Your task to perform on an android device: turn off sleep mode Image 0: 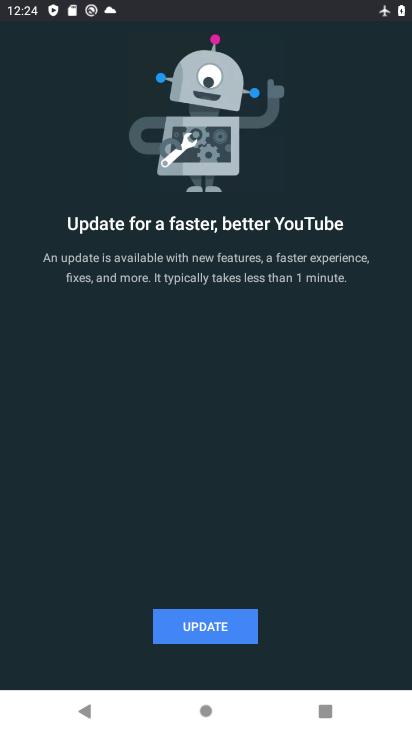
Step 0: press back button
Your task to perform on an android device: turn off sleep mode Image 1: 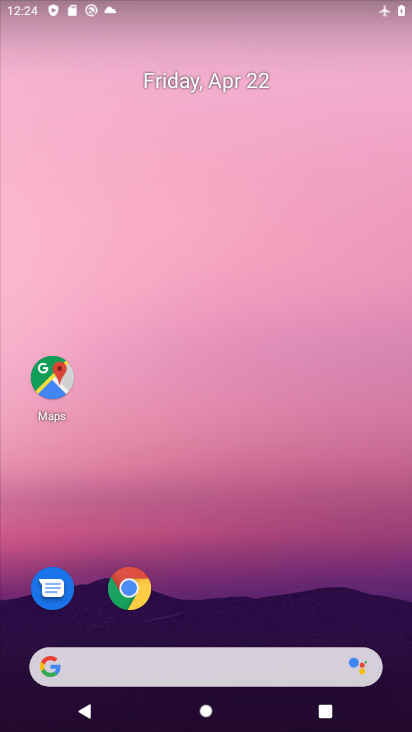
Step 1: drag from (286, 695) to (305, 149)
Your task to perform on an android device: turn off sleep mode Image 2: 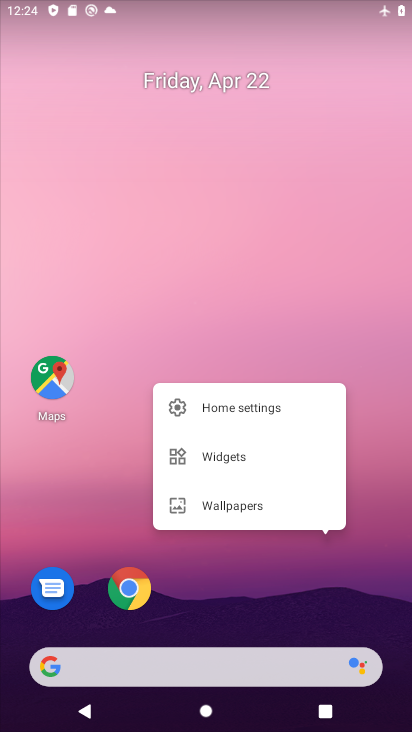
Step 2: click (287, 166)
Your task to perform on an android device: turn off sleep mode Image 3: 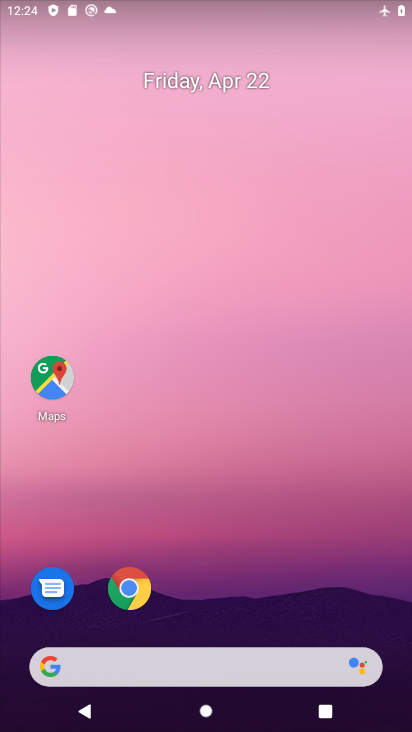
Step 3: drag from (253, 684) to (265, 150)
Your task to perform on an android device: turn off sleep mode Image 4: 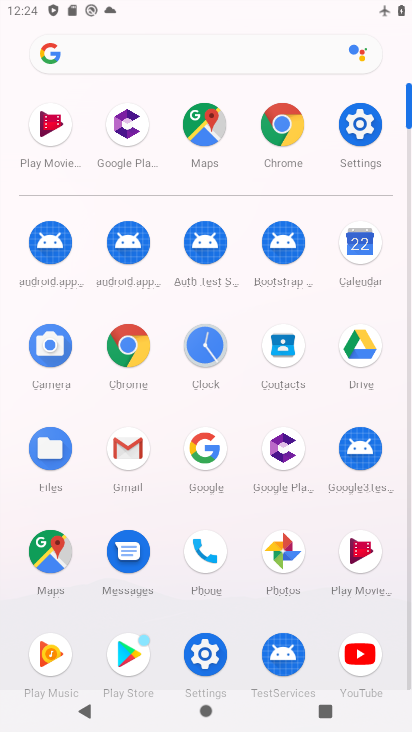
Step 4: click (360, 122)
Your task to perform on an android device: turn off sleep mode Image 5: 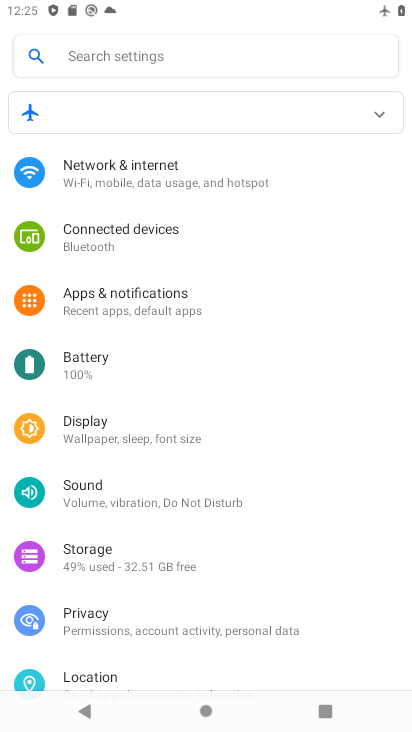
Step 5: click (242, 58)
Your task to perform on an android device: turn off sleep mode Image 6: 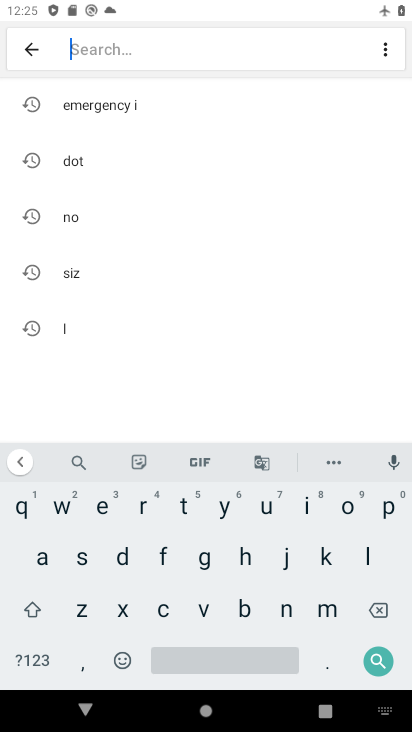
Step 6: click (79, 563)
Your task to perform on an android device: turn off sleep mode Image 7: 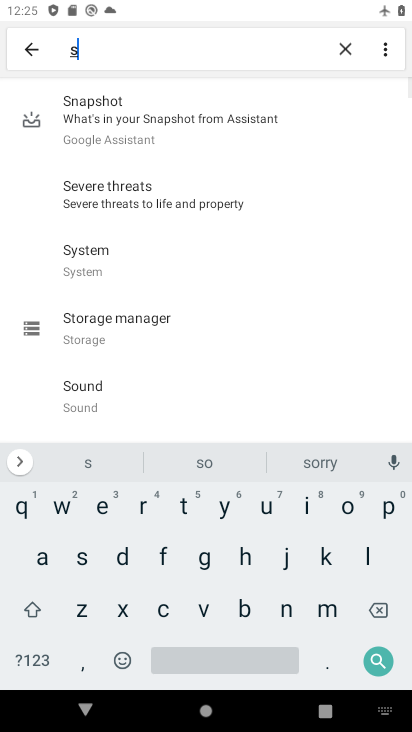
Step 7: click (363, 554)
Your task to perform on an android device: turn off sleep mode Image 8: 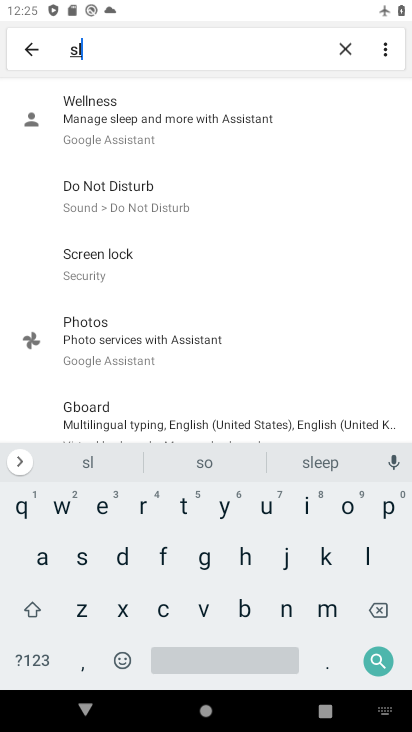
Step 8: click (163, 134)
Your task to perform on an android device: turn off sleep mode Image 9: 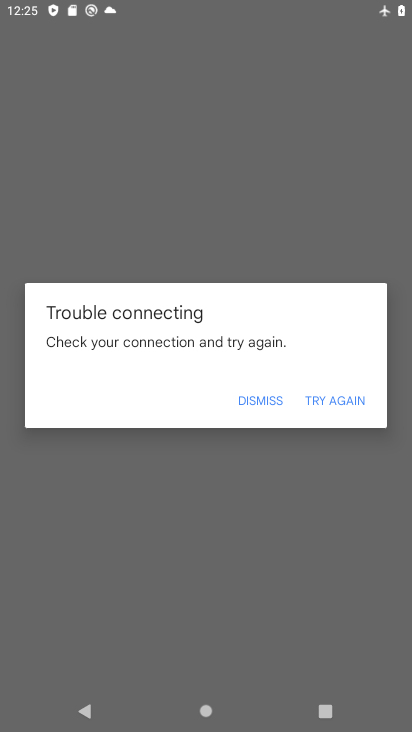
Step 9: click (321, 406)
Your task to perform on an android device: turn off sleep mode Image 10: 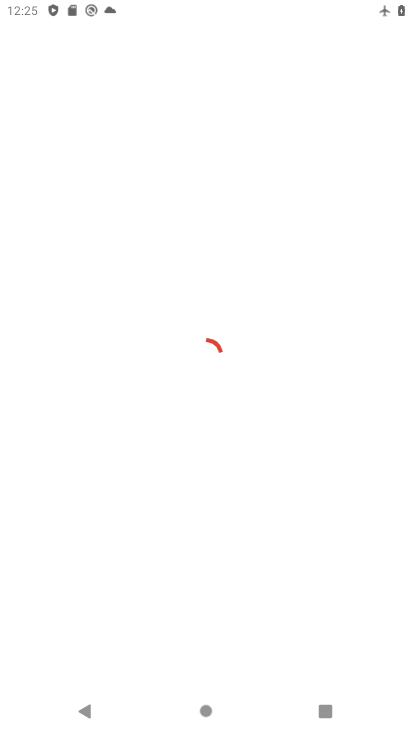
Step 10: press back button
Your task to perform on an android device: turn off sleep mode Image 11: 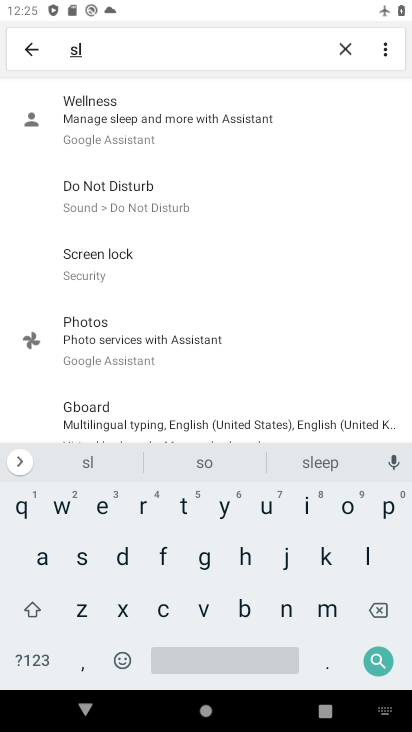
Step 11: click (32, 50)
Your task to perform on an android device: turn off sleep mode Image 12: 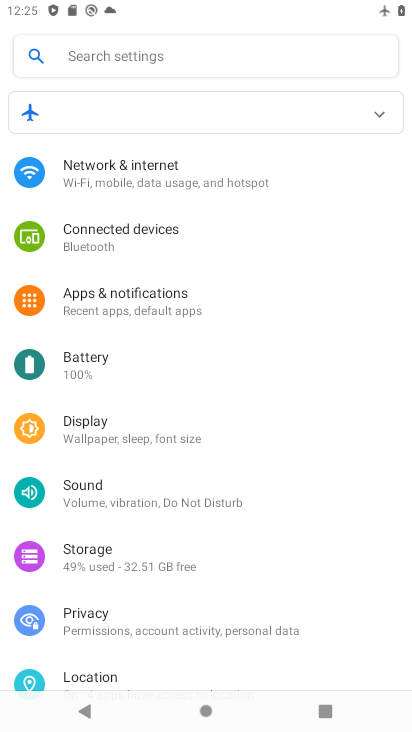
Step 12: click (377, 116)
Your task to perform on an android device: turn off sleep mode Image 13: 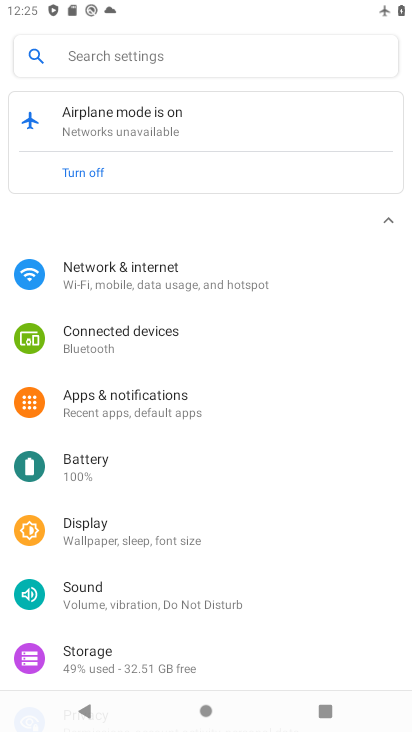
Step 13: click (82, 178)
Your task to perform on an android device: turn off sleep mode Image 14: 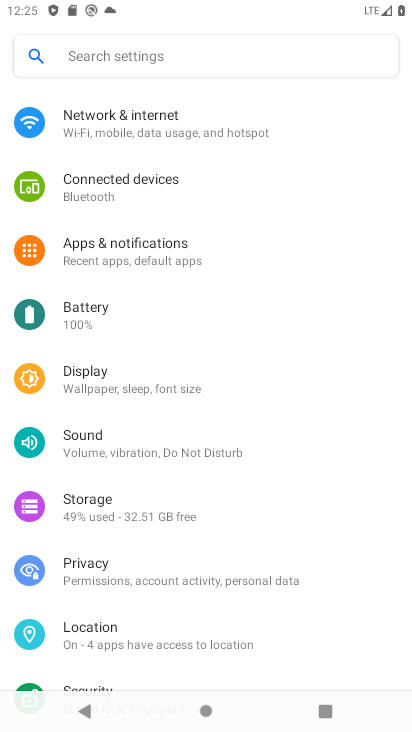
Step 14: click (129, 51)
Your task to perform on an android device: turn off sleep mode Image 15: 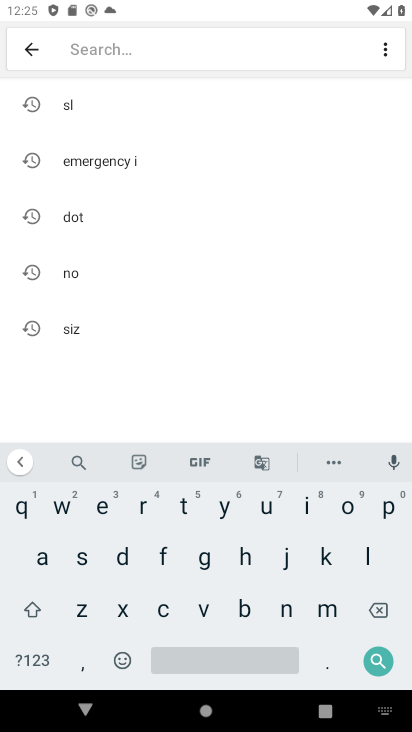
Step 15: click (90, 118)
Your task to perform on an android device: turn off sleep mode Image 16: 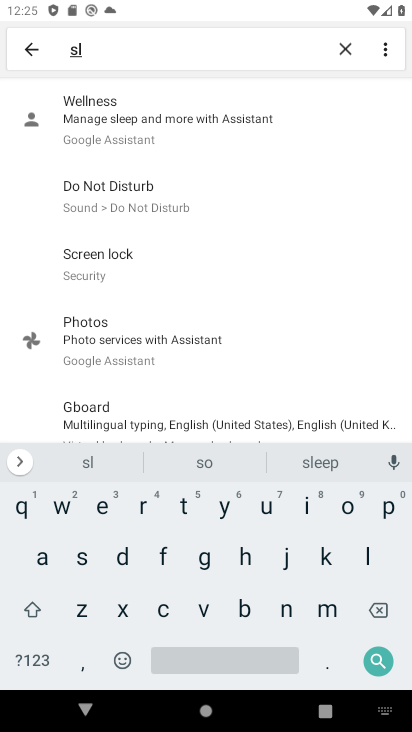
Step 16: click (90, 118)
Your task to perform on an android device: turn off sleep mode Image 17: 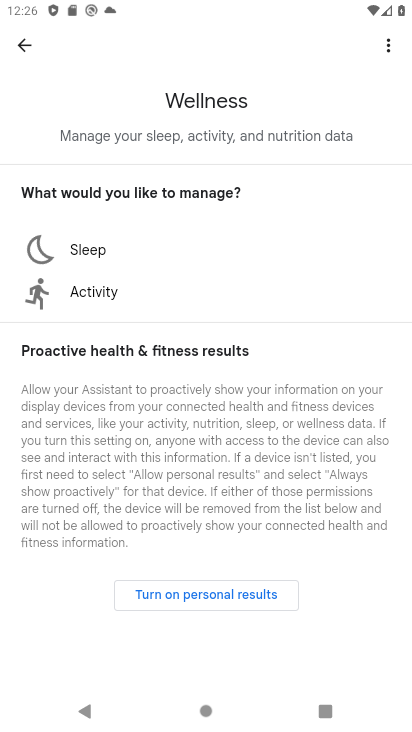
Step 17: click (116, 252)
Your task to perform on an android device: turn off sleep mode Image 18: 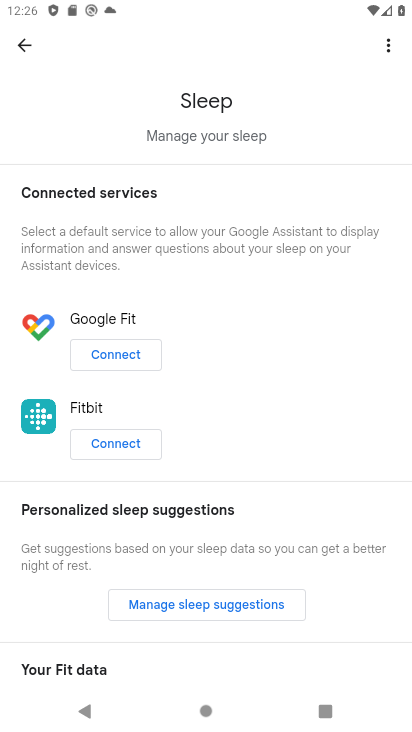
Step 18: task complete